Your task to perform on an android device: set the stopwatch Image 0: 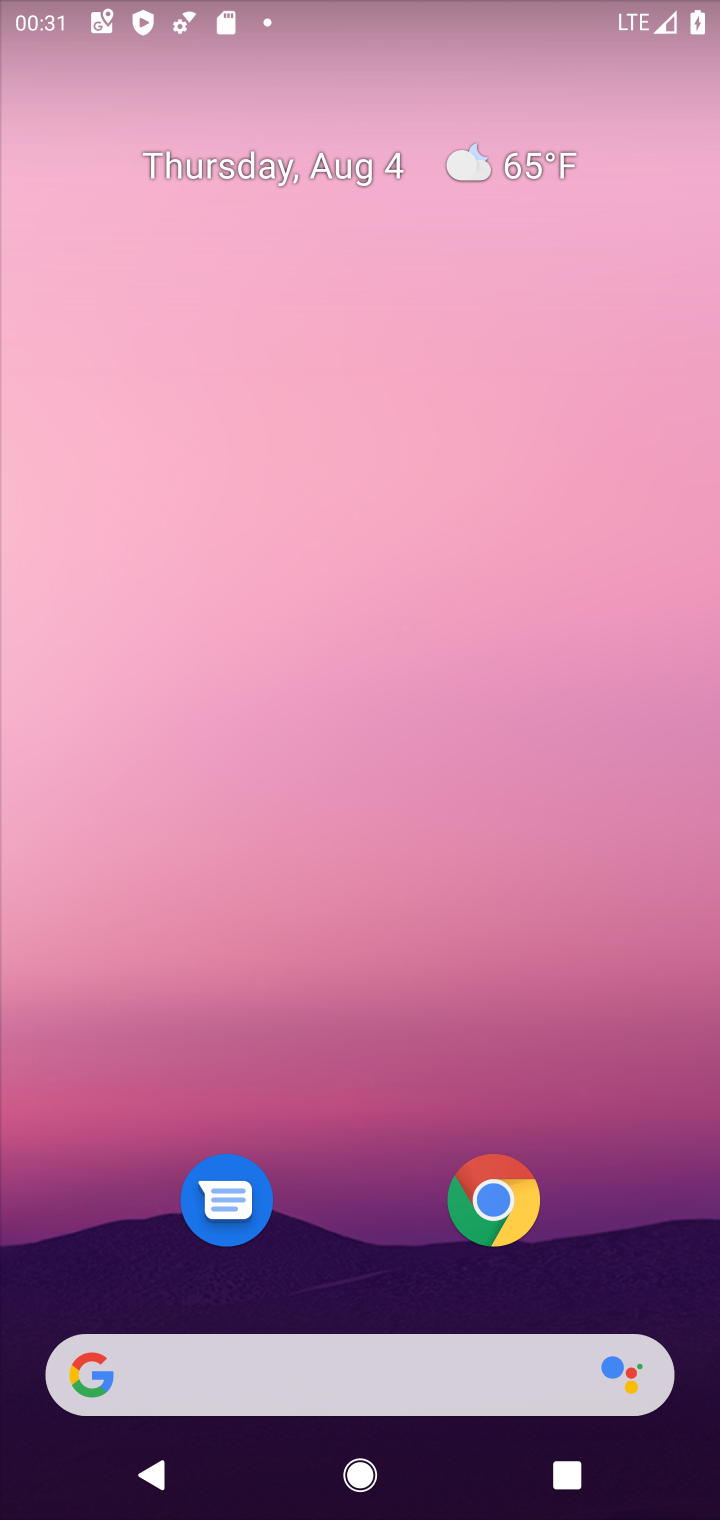
Step 0: press home button
Your task to perform on an android device: set the stopwatch Image 1: 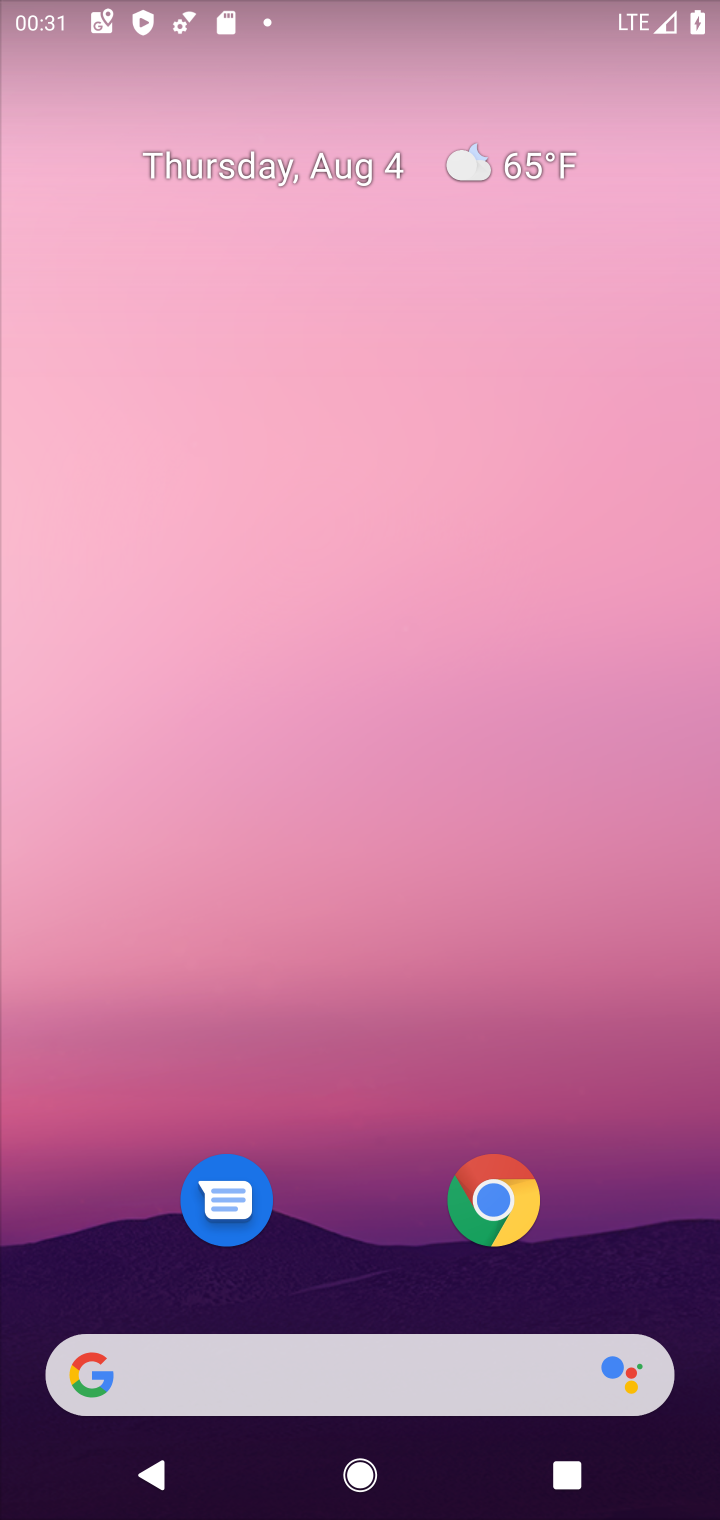
Step 1: drag from (355, 1116) to (331, 214)
Your task to perform on an android device: set the stopwatch Image 2: 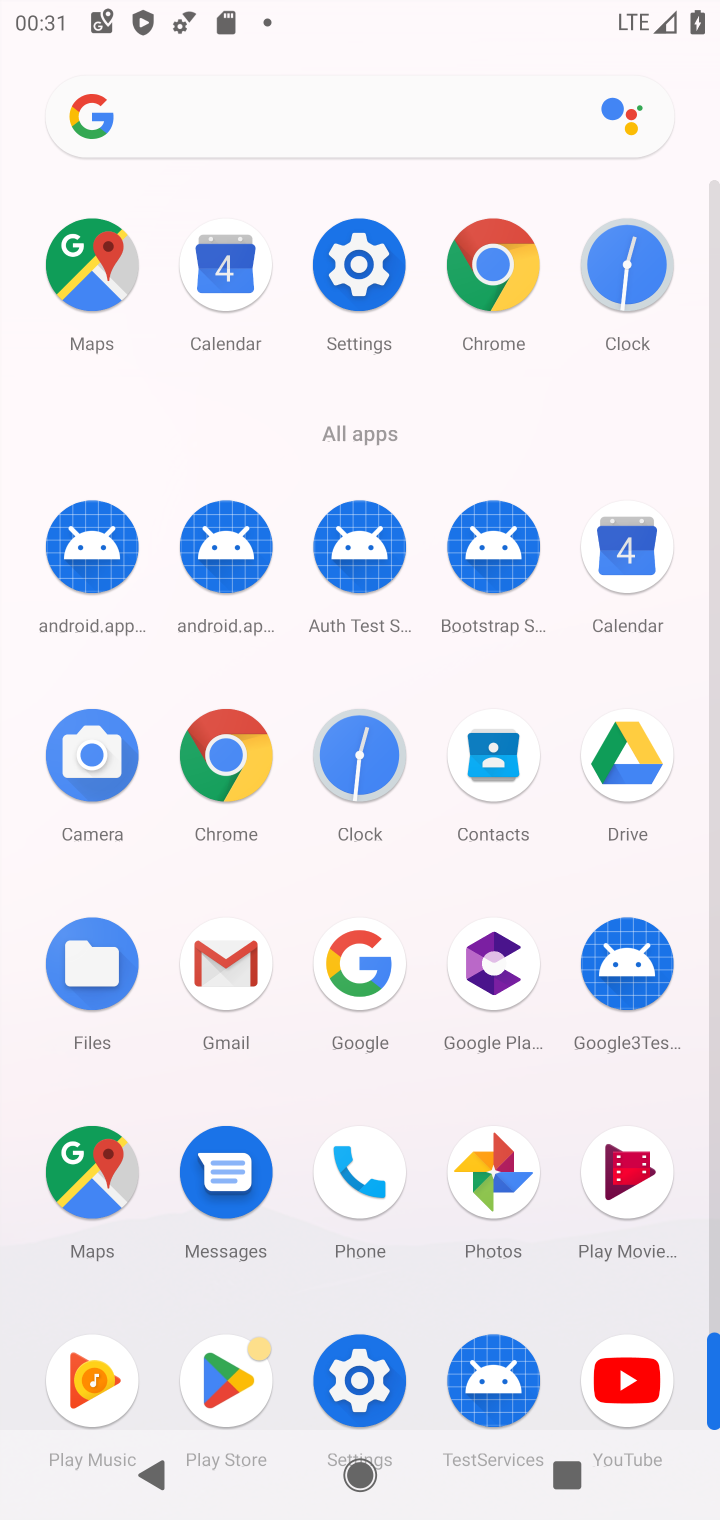
Step 2: click (314, 771)
Your task to perform on an android device: set the stopwatch Image 3: 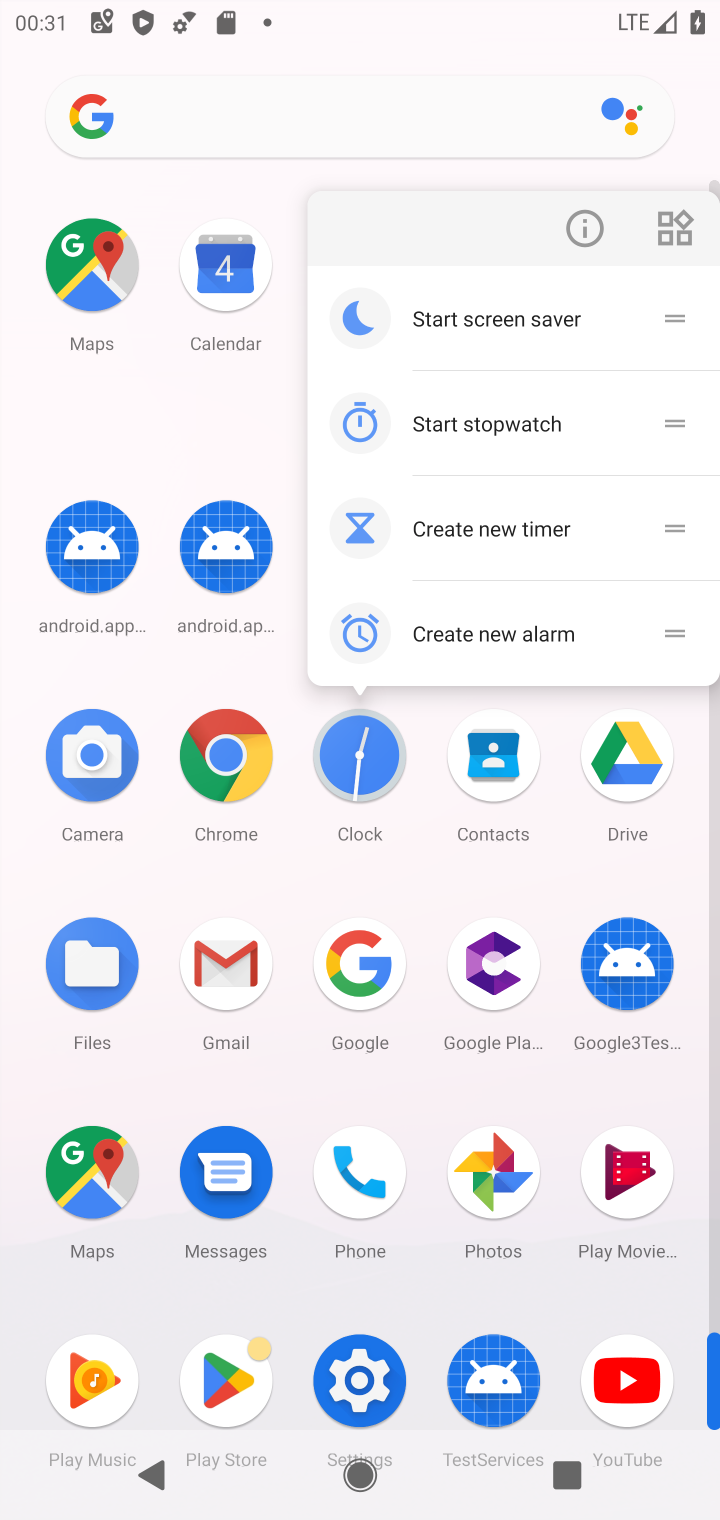
Step 3: click (356, 774)
Your task to perform on an android device: set the stopwatch Image 4: 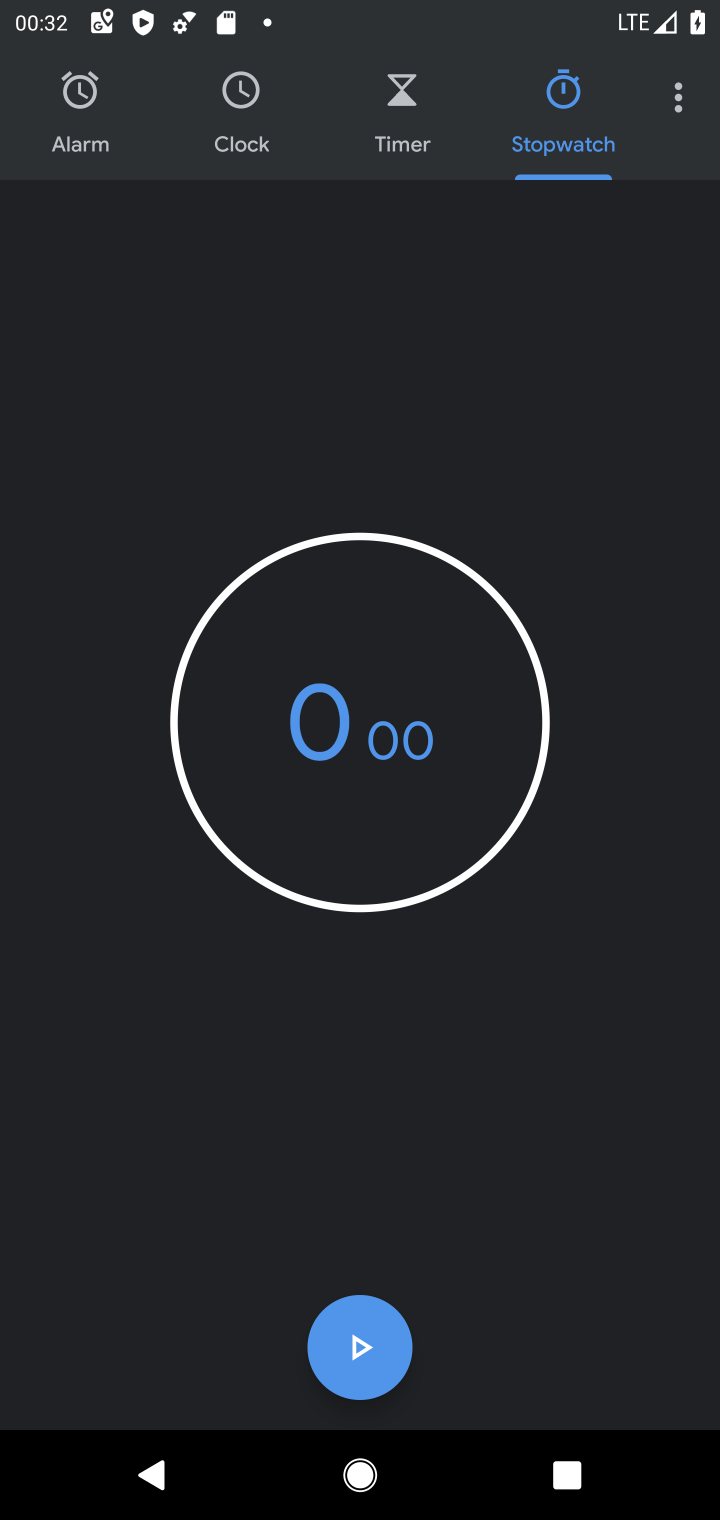
Step 4: click (371, 1370)
Your task to perform on an android device: set the stopwatch Image 5: 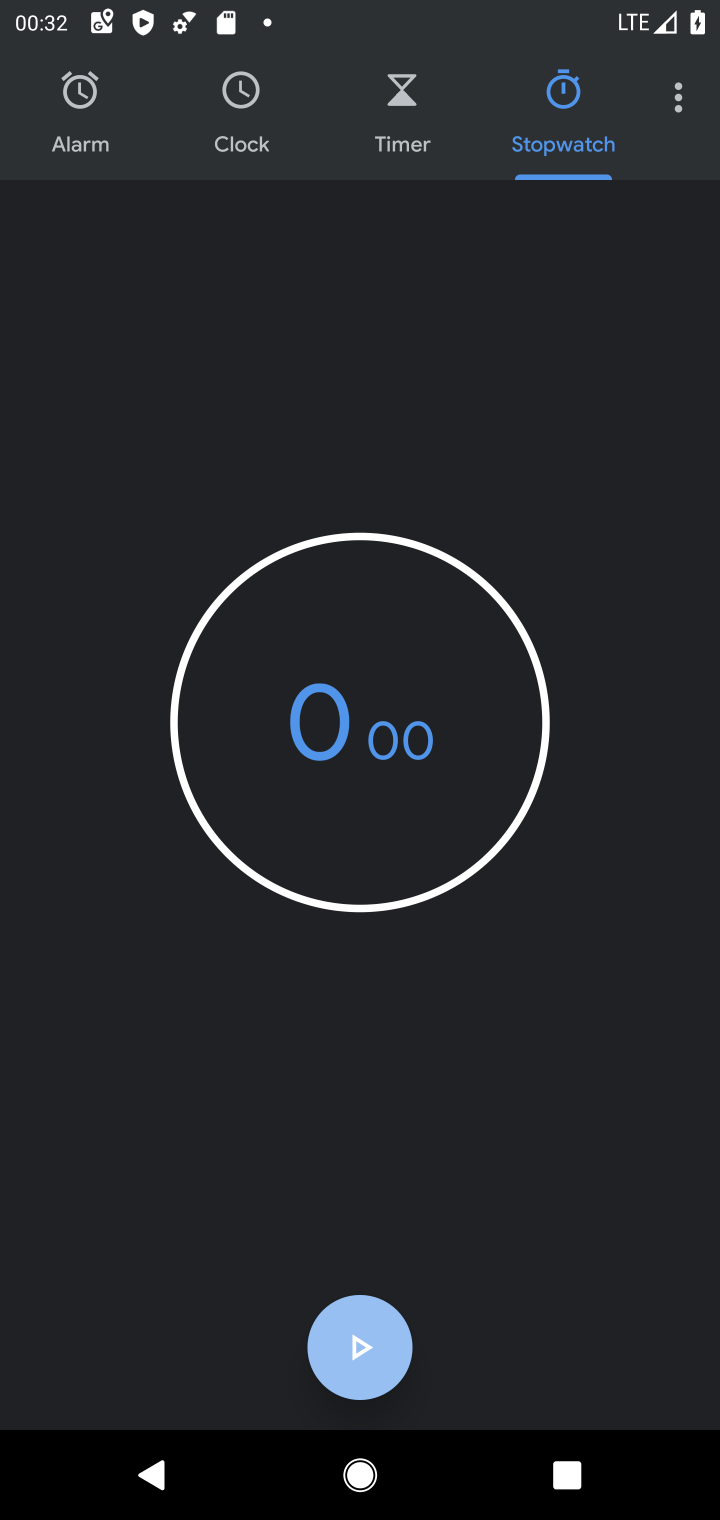
Step 5: task complete